Your task to perform on an android device: turn off notifications settings in the gmail app Image 0: 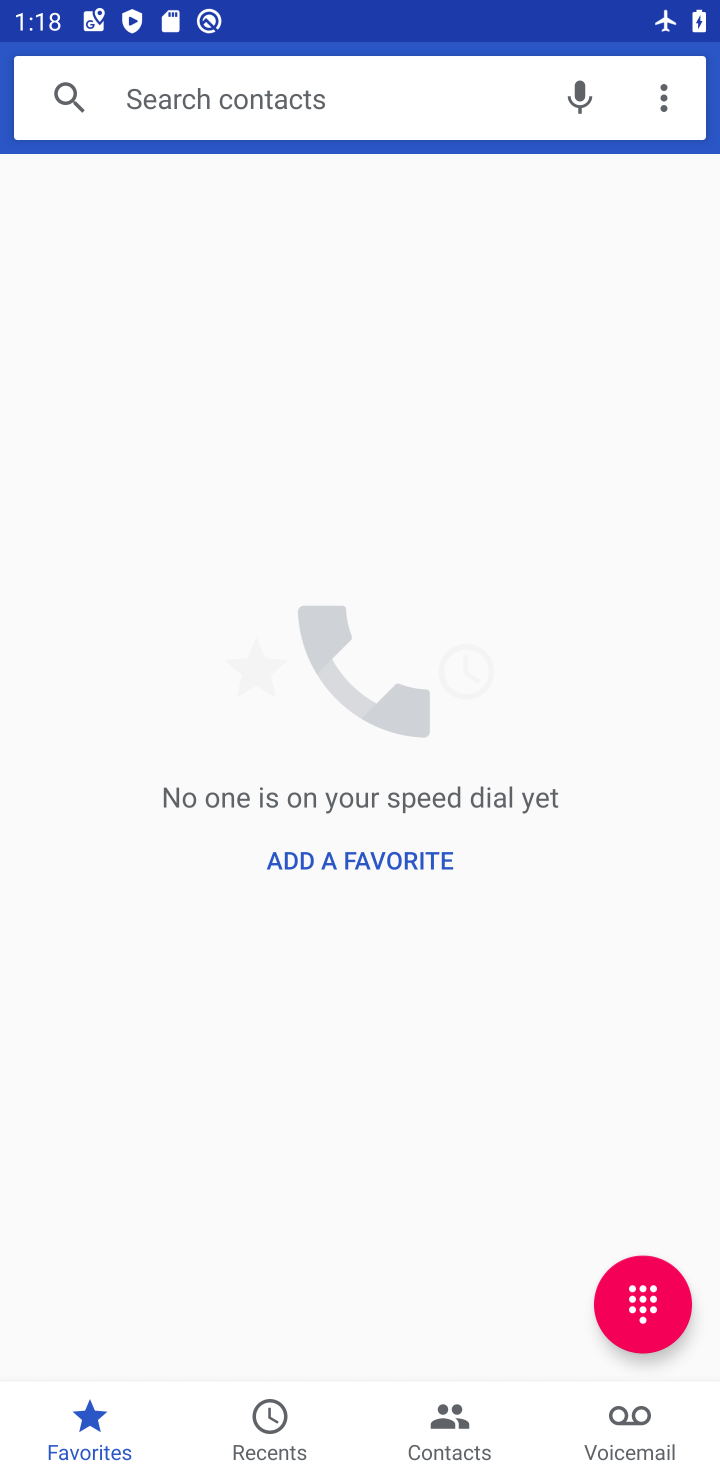
Step 0: press home button
Your task to perform on an android device: turn off notifications settings in the gmail app Image 1: 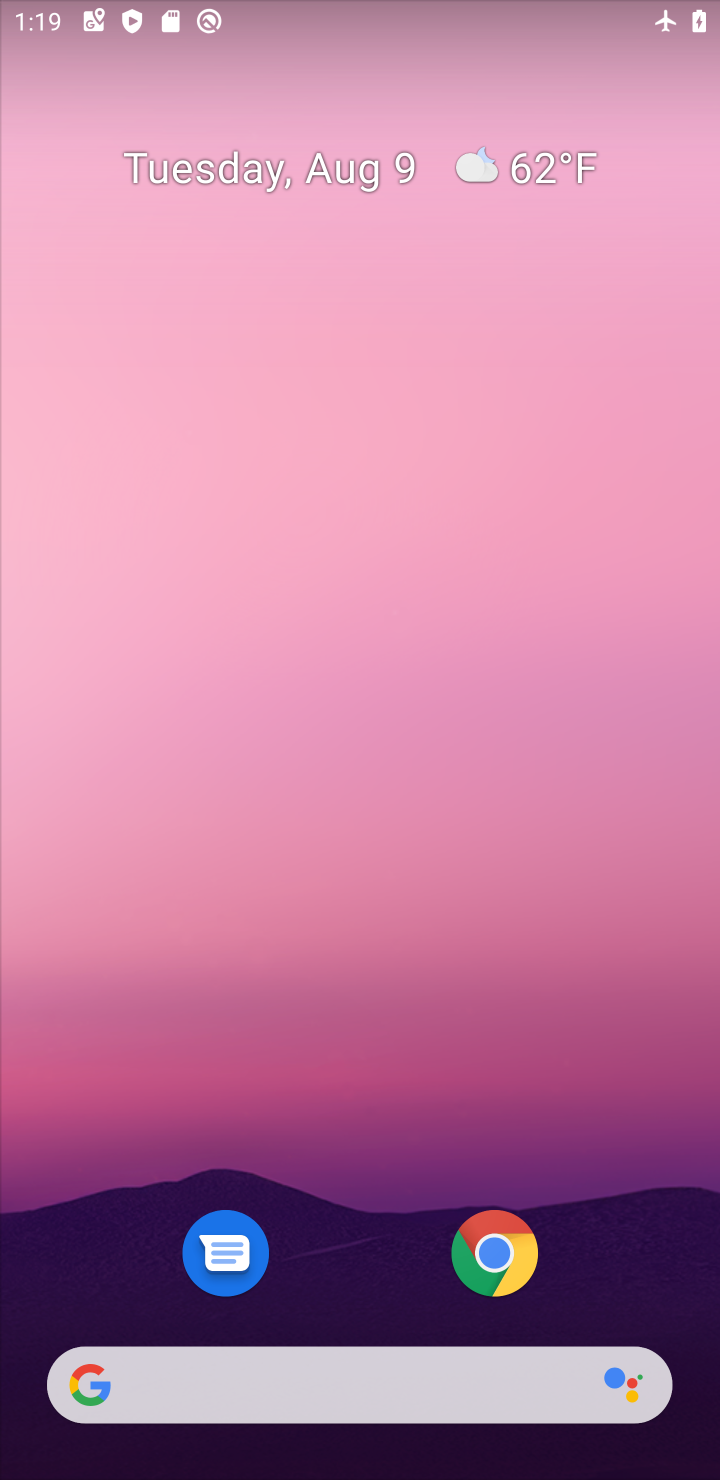
Step 1: drag from (635, 1300) to (290, 46)
Your task to perform on an android device: turn off notifications settings in the gmail app Image 2: 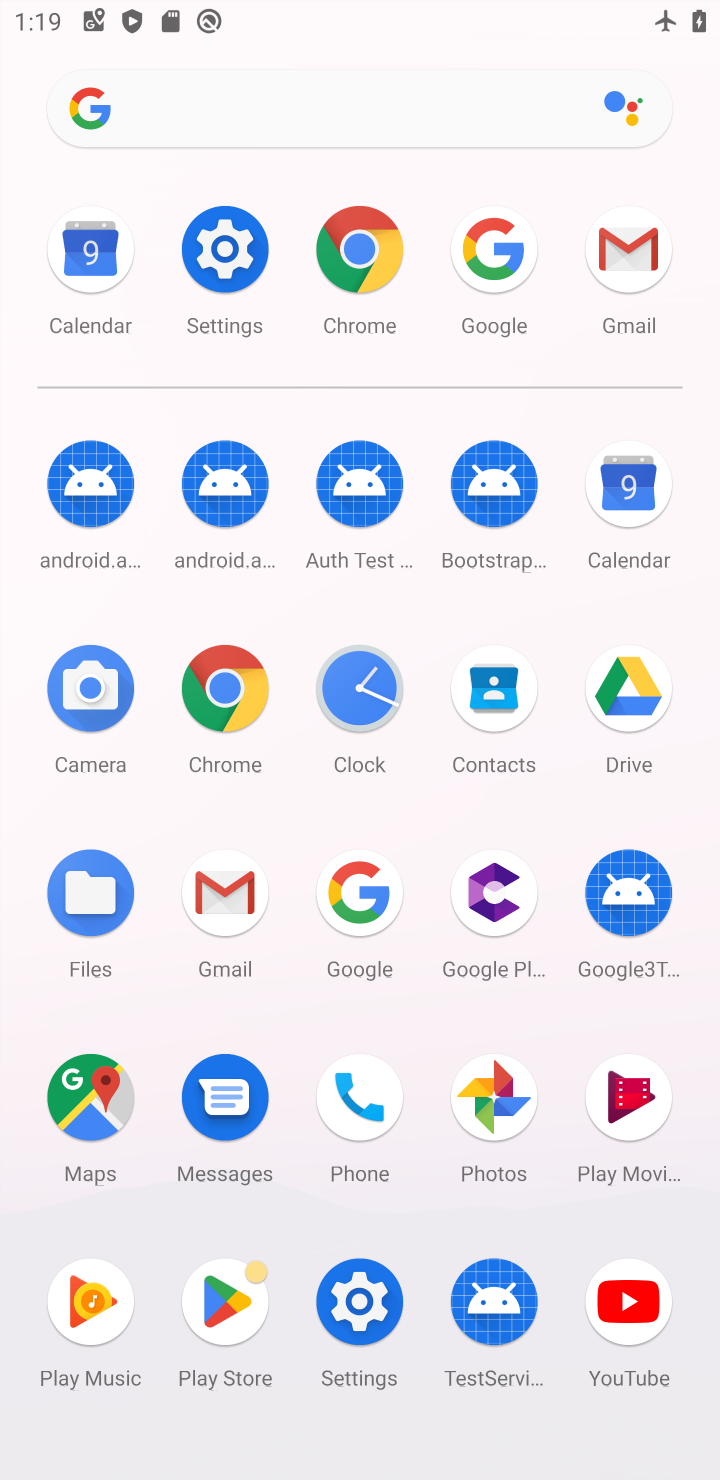
Step 2: click (211, 892)
Your task to perform on an android device: turn off notifications settings in the gmail app Image 3: 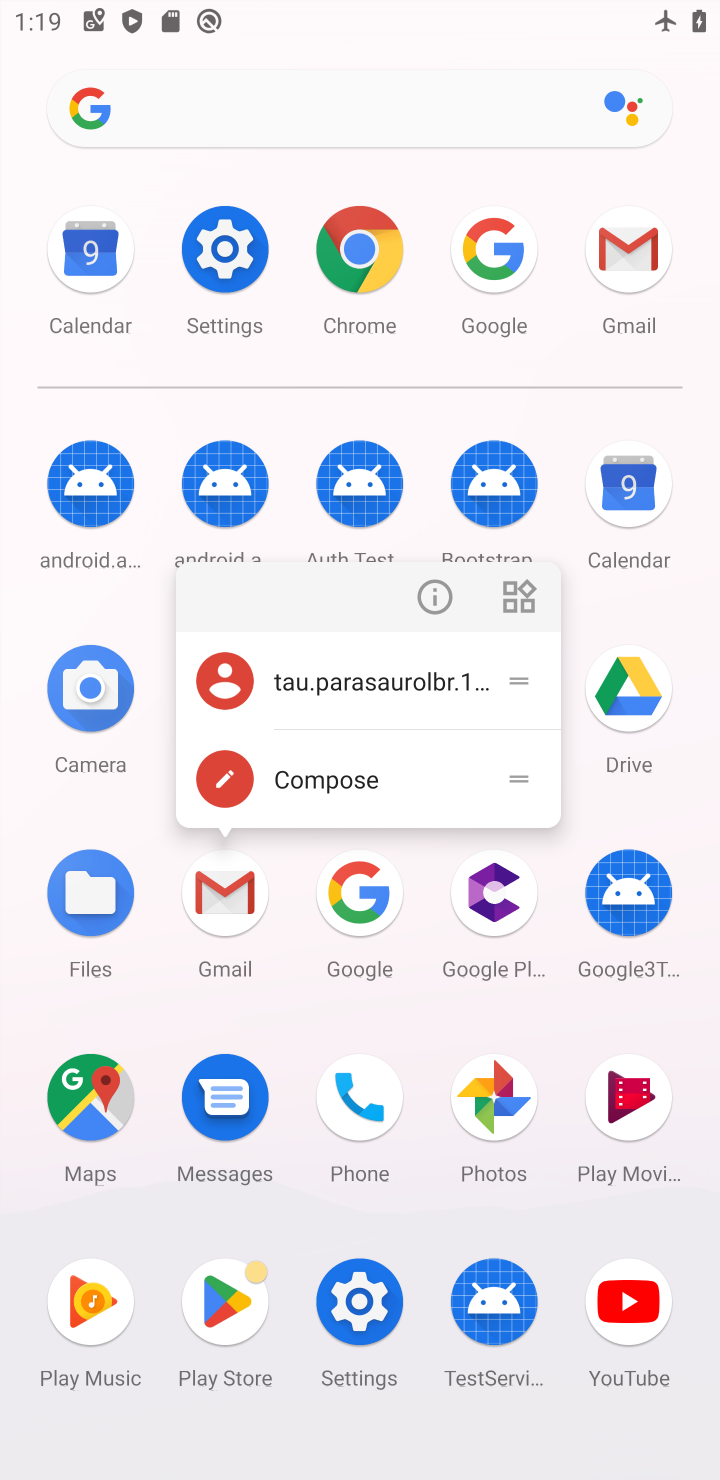
Step 3: click (211, 892)
Your task to perform on an android device: turn off notifications settings in the gmail app Image 4: 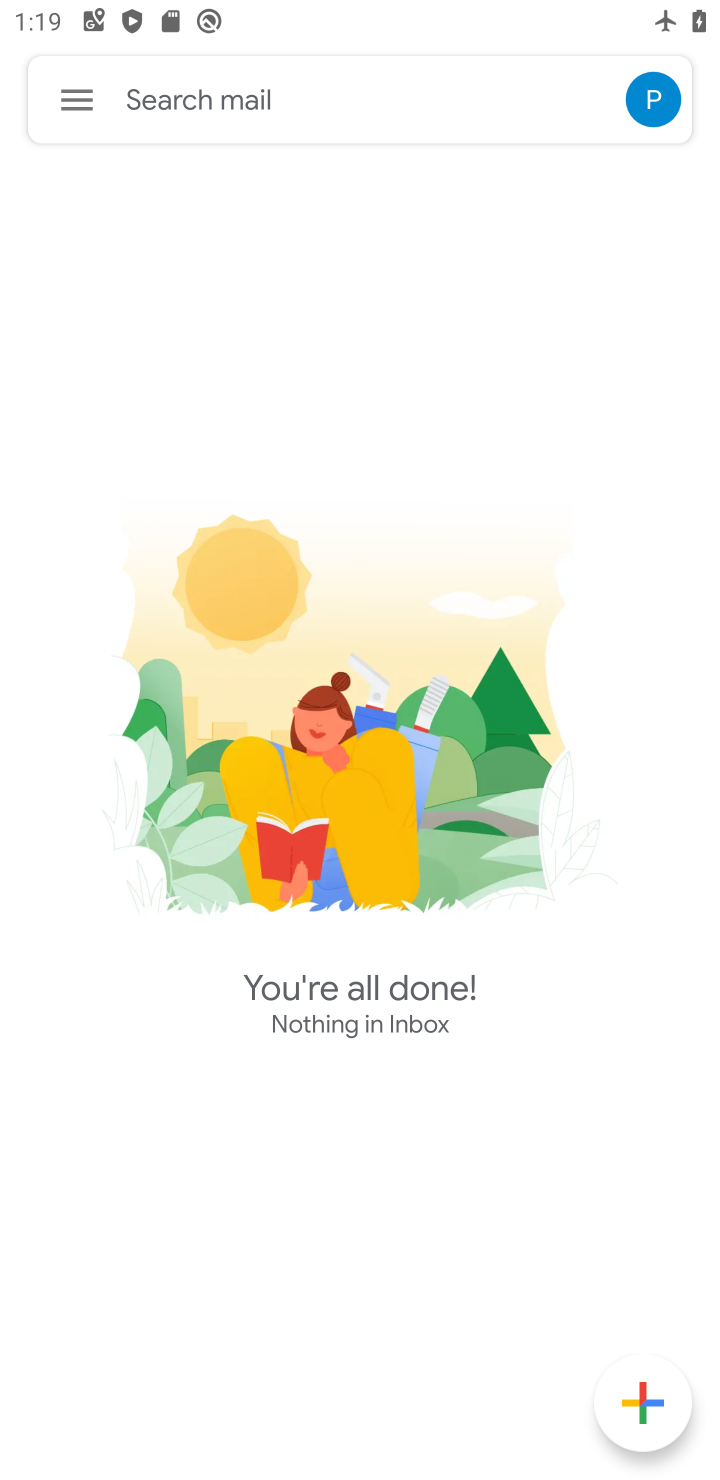
Step 4: click (61, 82)
Your task to perform on an android device: turn off notifications settings in the gmail app Image 5: 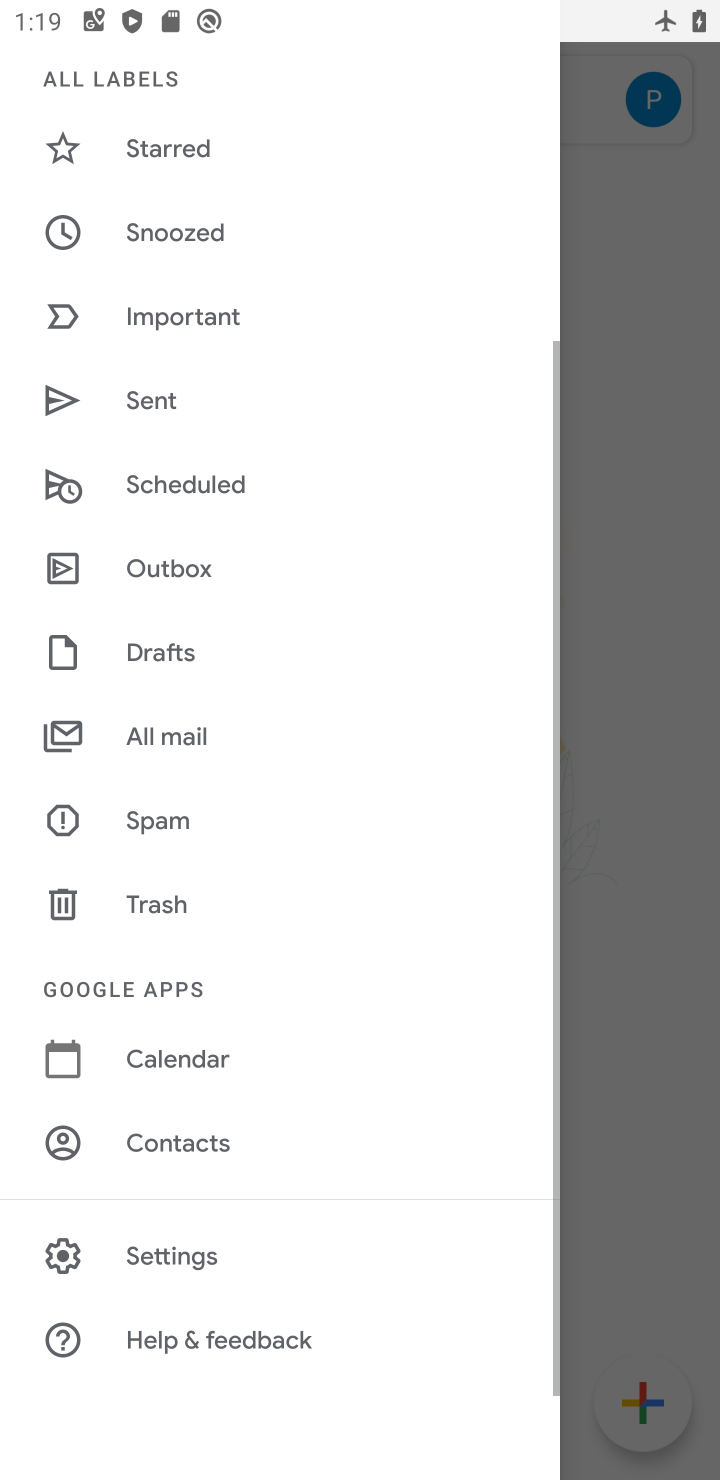
Step 5: click (211, 1259)
Your task to perform on an android device: turn off notifications settings in the gmail app Image 6: 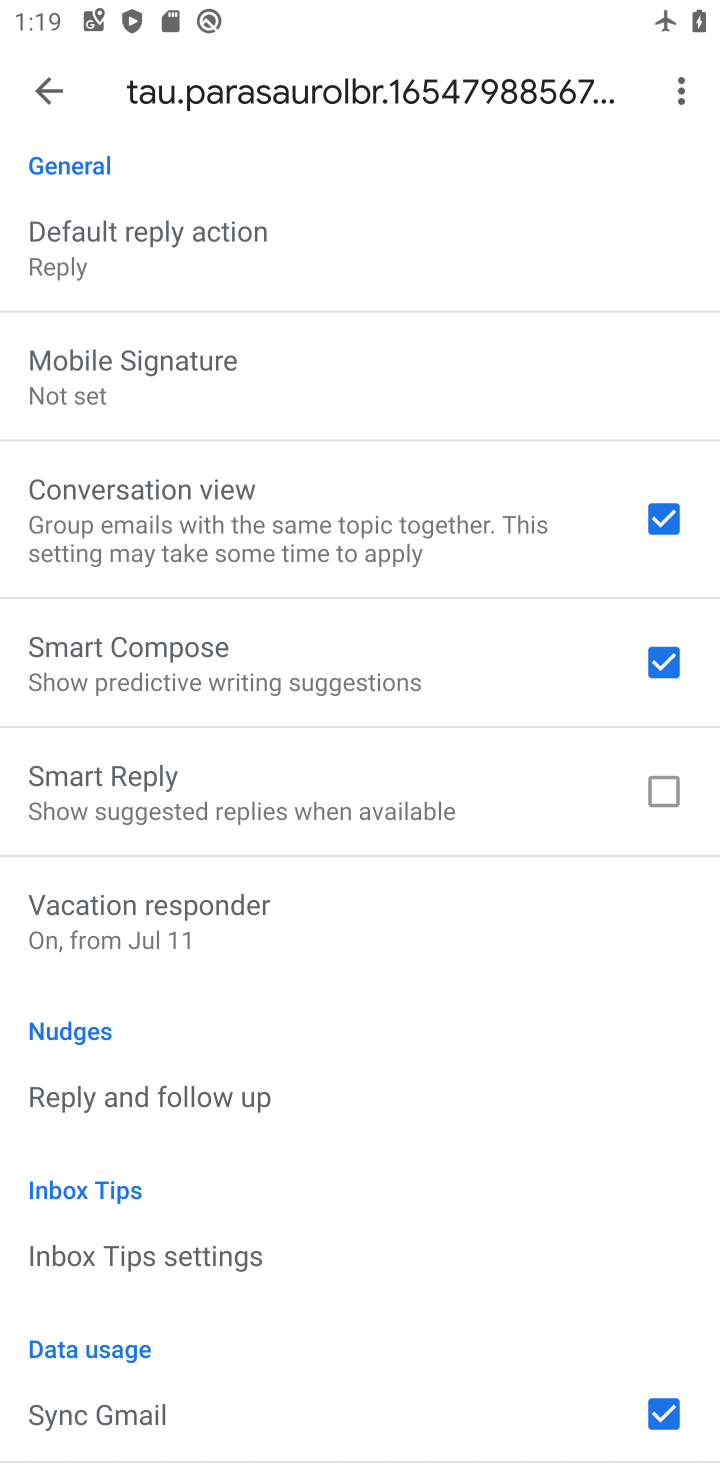
Step 6: drag from (166, 327) to (322, 1438)
Your task to perform on an android device: turn off notifications settings in the gmail app Image 7: 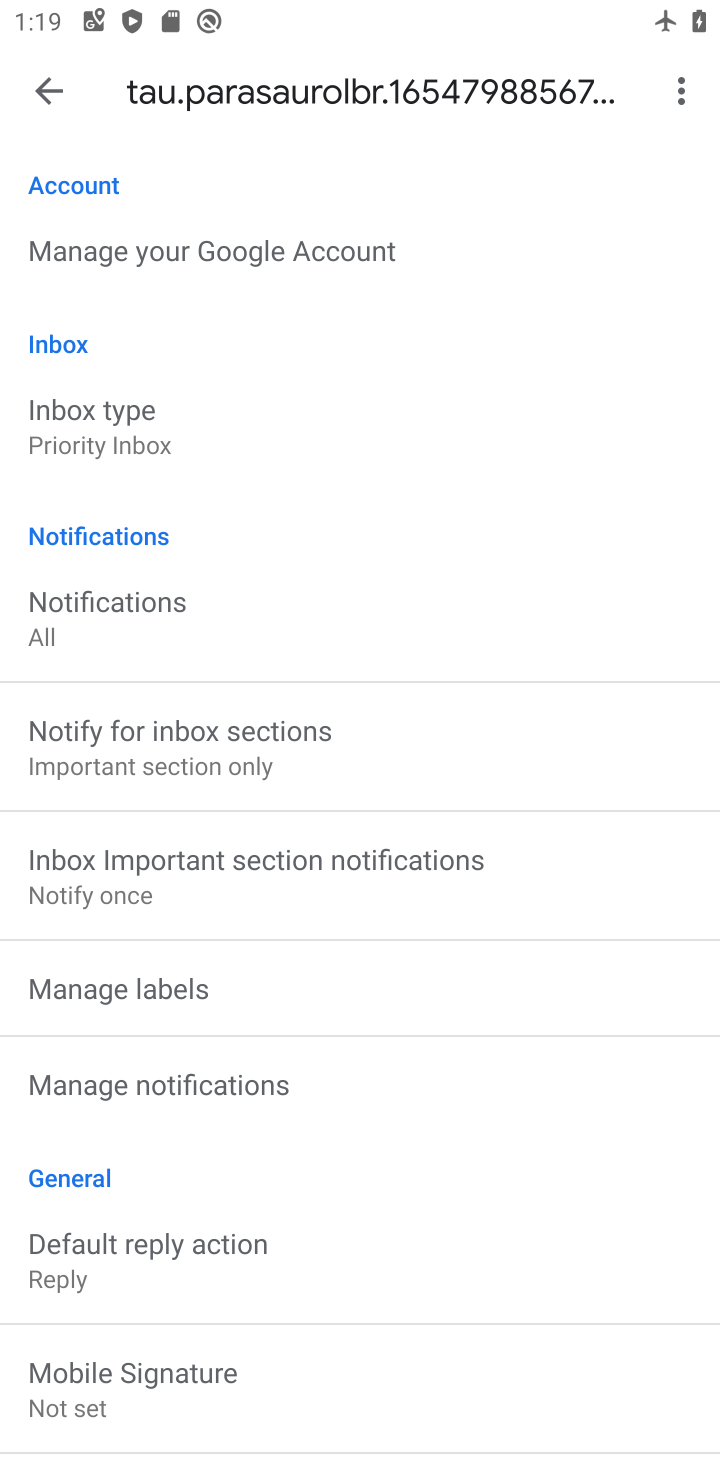
Step 7: click (120, 625)
Your task to perform on an android device: turn off notifications settings in the gmail app Image 8: 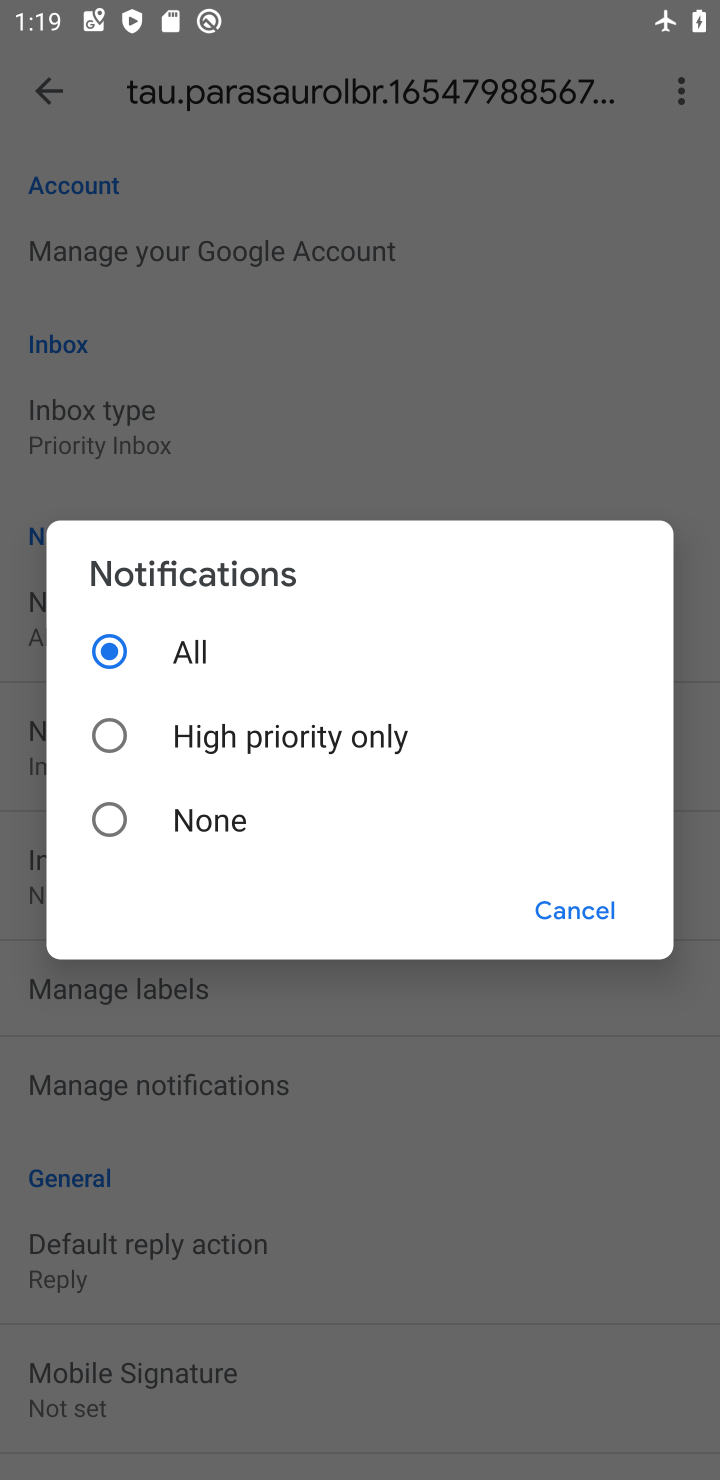
Step 8: click (219, 799)
Your task to perform on an android device: turn off notifications settings in the gmail app Image 9: 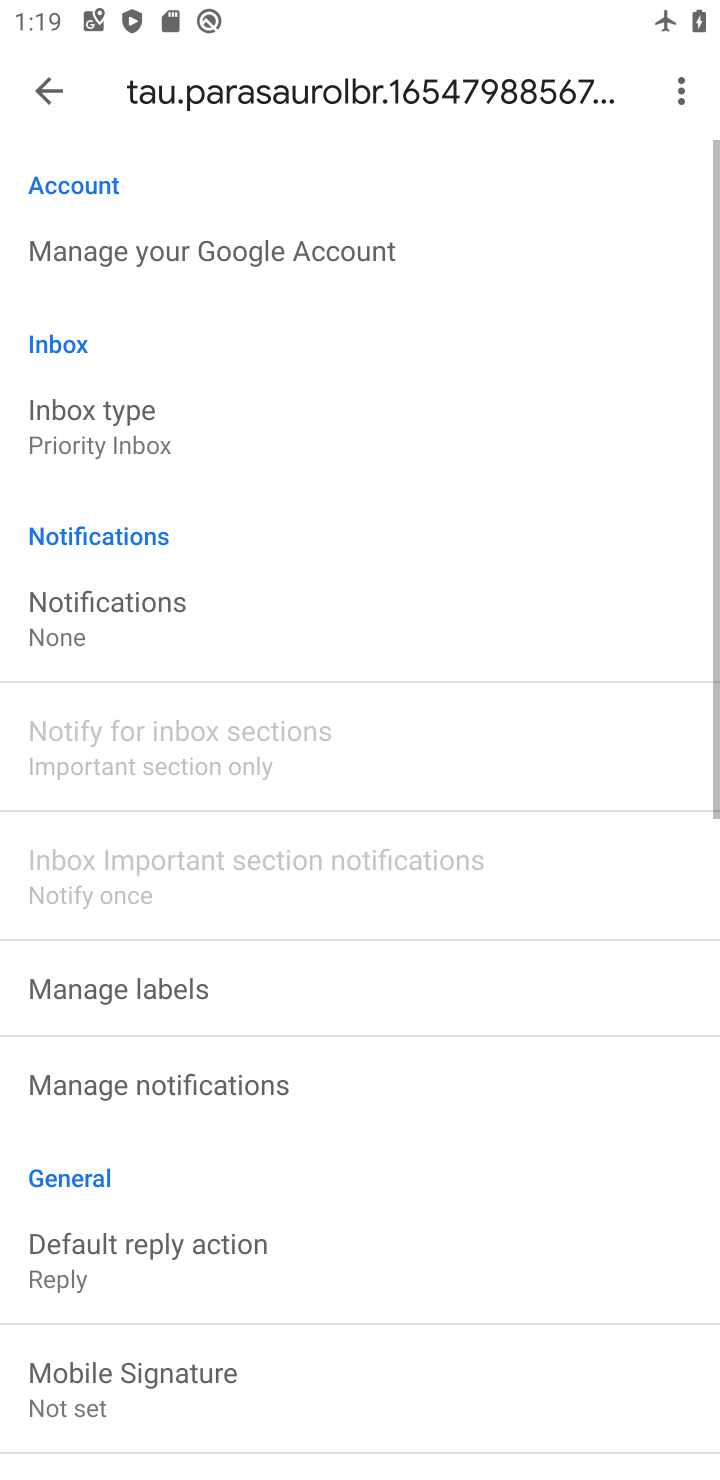
Step 9: task complete